Your task to perform on an android device: Set the phone to "Do not disturb". Image 0: 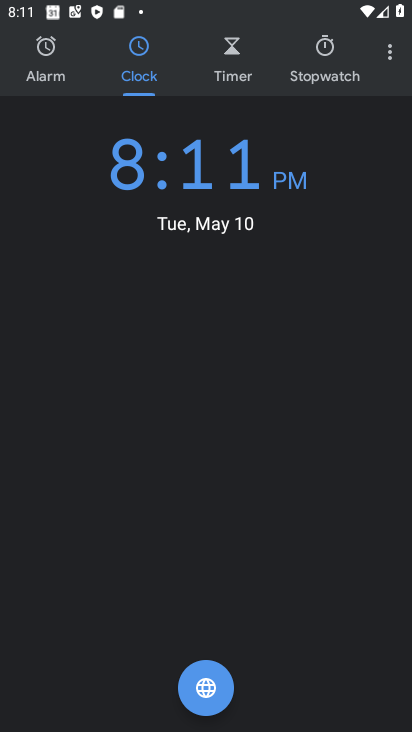
Step 0: press home button
Your task to perform on an android device: Set the phone to "Do not disturb". Image 1: 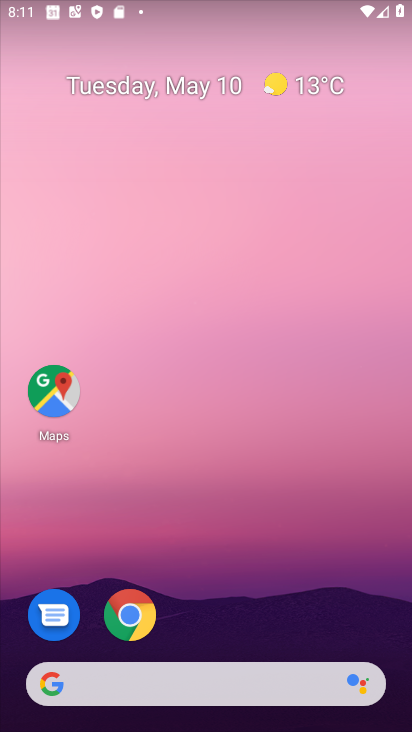
Step 1: drag from (224, 533) to (117, 90)
Your task to perform on an android device: Set the phone to "Do not disturb". Image 2: 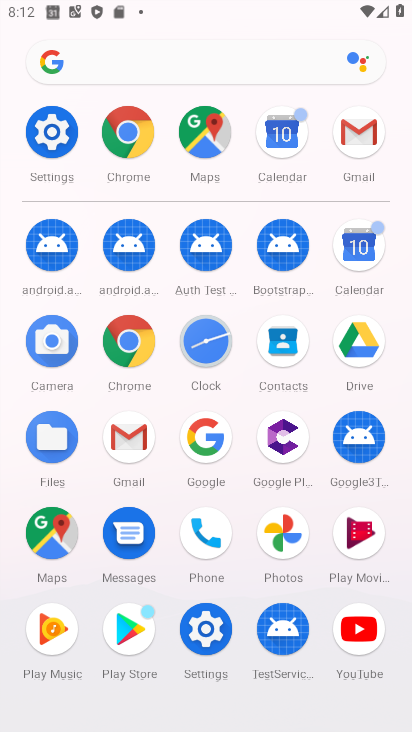
Step 2: click (51, 131)
Your task to perform on an android device: Set the phone to "Do not disturb". Image 3: 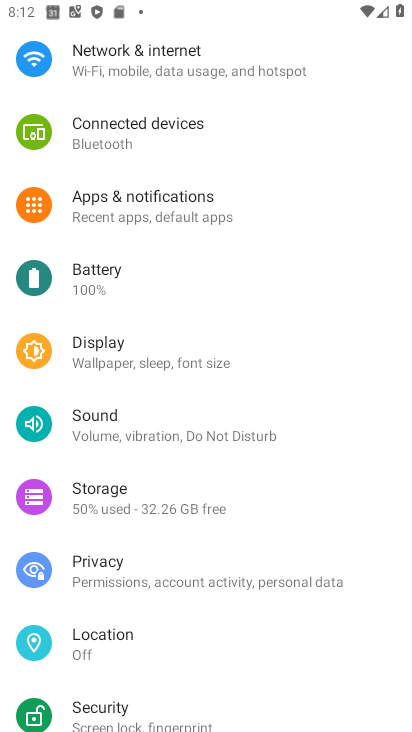
Step 3: click (106, 420)
Your task to perform on an android device: Set the phone to "Do not disturb". Image 4: 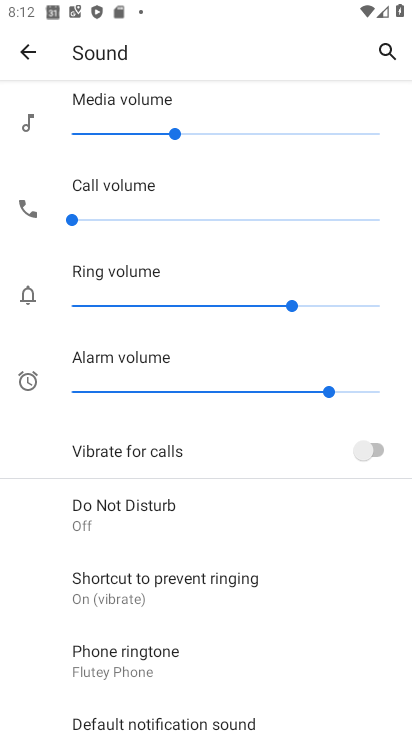
Step 4: drag from (196, 610) to (133, 149)
Your task to perform on an android device: Set the phone to "Do not disturb". Image 5: 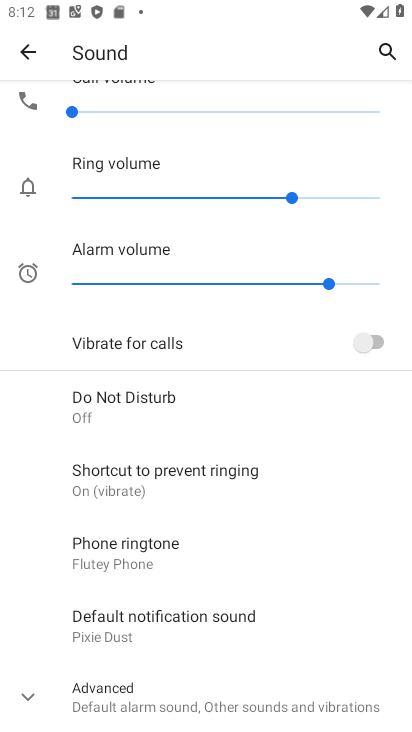
Step 5: drag from (195, 577) to (157, 345)
Your task to perform on an android device: Set the phone to "Do not disturb". Image 6: 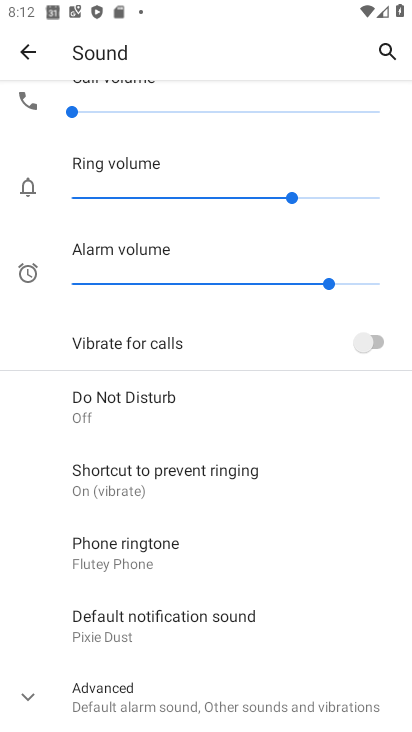
Step 6: click (136, 402)
Your task to perform on an android device: Set the phone to "Do not disturb". Image 7: 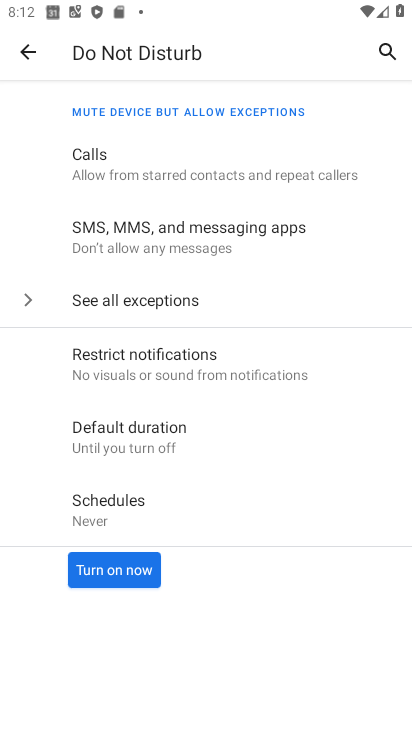
Step 7: click (118, 580)
Your task to perform on an android device: Set the phone to "Do not disturb". Image 8: 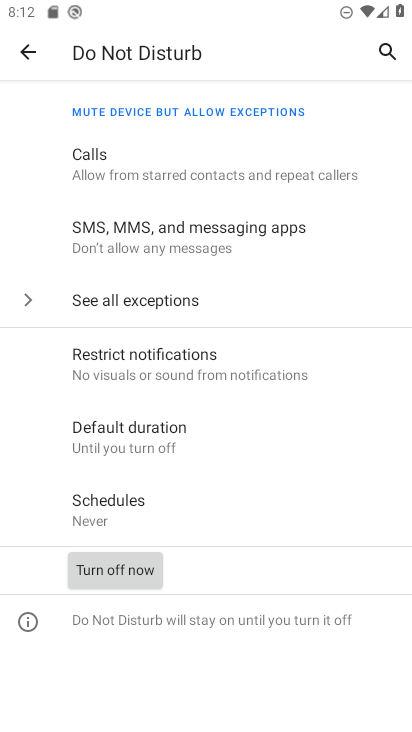
Step 8: task complete